Your task to perform on an android device: make emails show in primary in the gmail app Image 0: 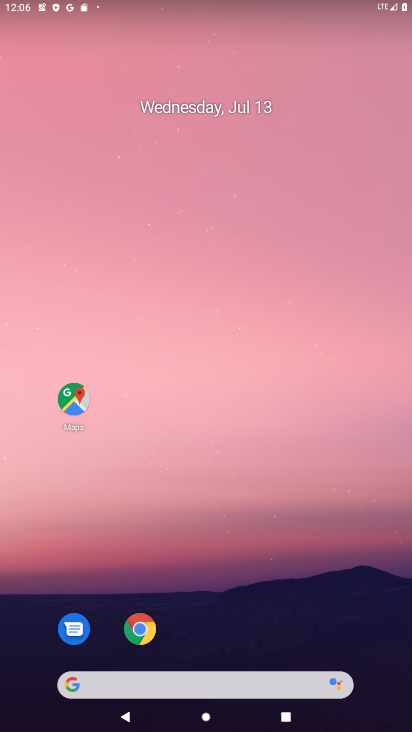
Step 0: click (192, 303)
Your task to perform on an android device: make emails show in primary in the gmail app Image 1: 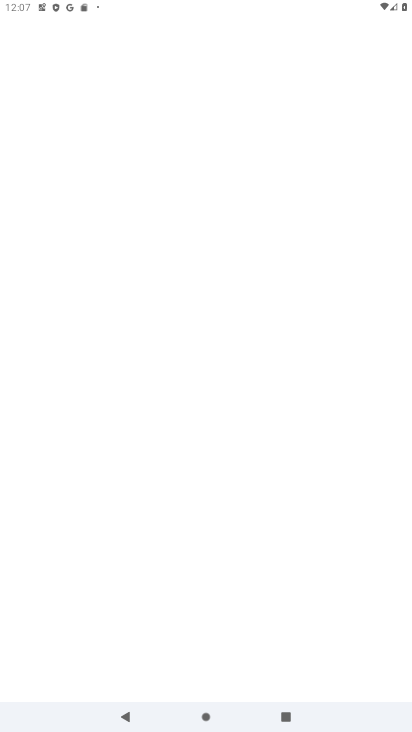
Step 1: press home button
Your task to perform on an android device: make emails show in primary in the gmail app Image 2: 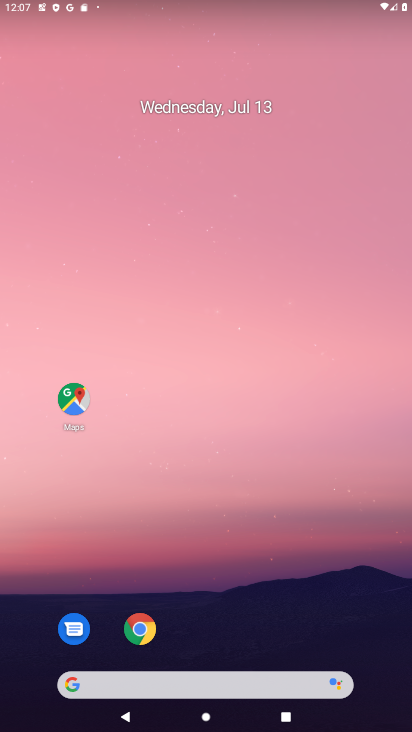
Step 2: drag from (270, 571) to (251, 284)
Your task to perform on an android device: make emails show in primary in the gmail app Image 3: 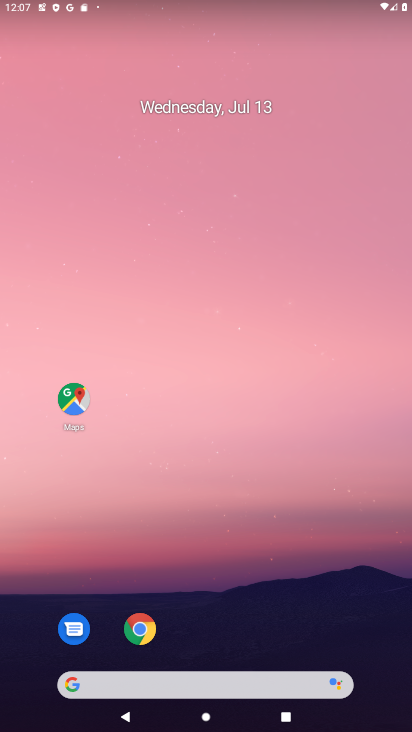
Step 3: drag from (200, 629) to (214, 195)
Your task to perform on an android device: make emails show in primary in the gmail app Image 4: 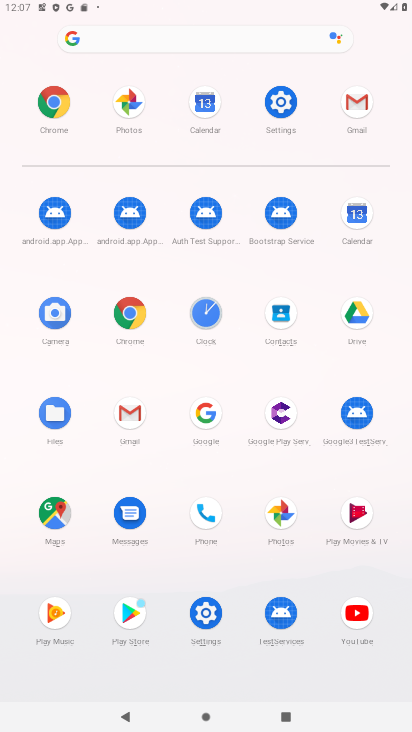
Step 4: click (352, 94)
Your task to perform on an android device: make emails show in primary in the gmail app Image 5: 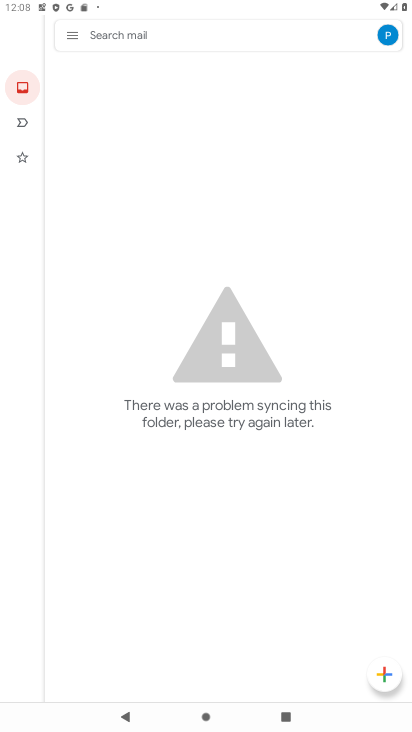
Step 5: click (69, 33)
Your task to perform on an android device: make emails show in primary in the gmail app Image 6: 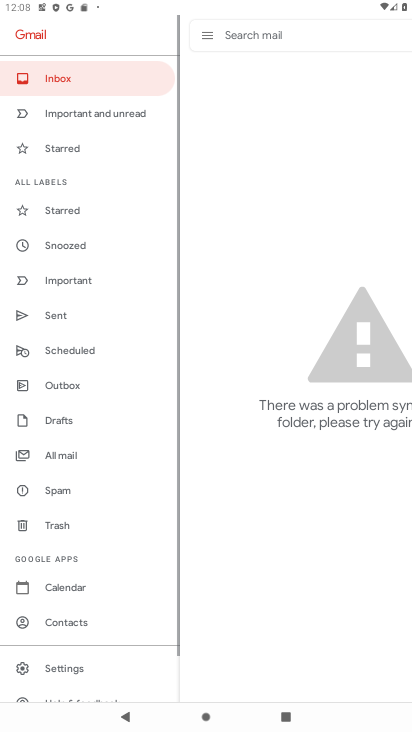
Step 6: click (59, 672)
Your task to perform on an android device: make emails show in primary in the gmail app Image 7: 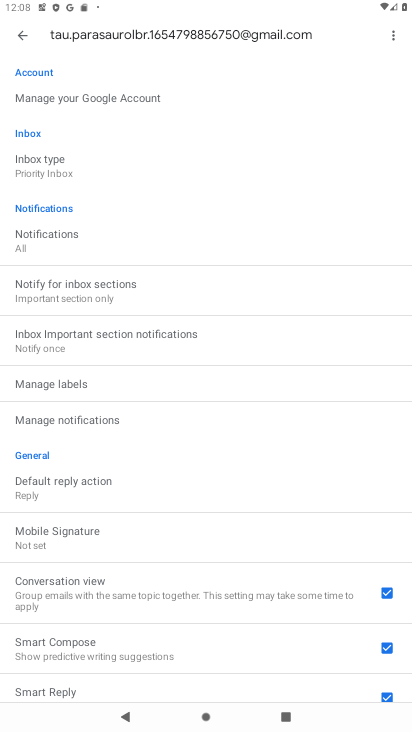
Step 7: drag from (62, 508) to (73, 230)
Your task to perform on an android device: make emails show in primary in the gmail app Image 8: 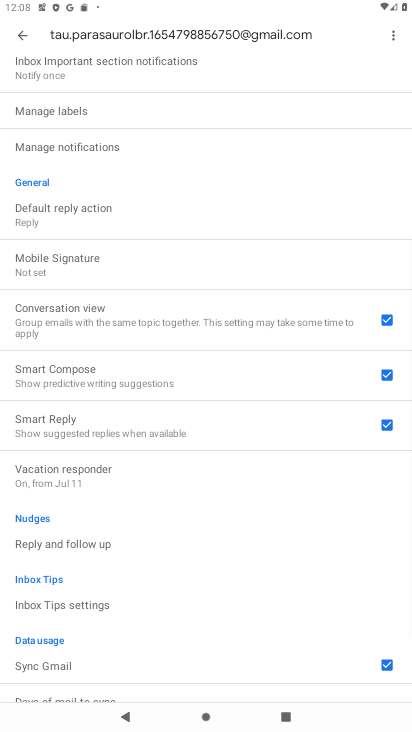
Step 8: drag from (82, 627) to (177, 175)
Your task to perform on an android device: make emails show in primary in the gmail app Image 9: 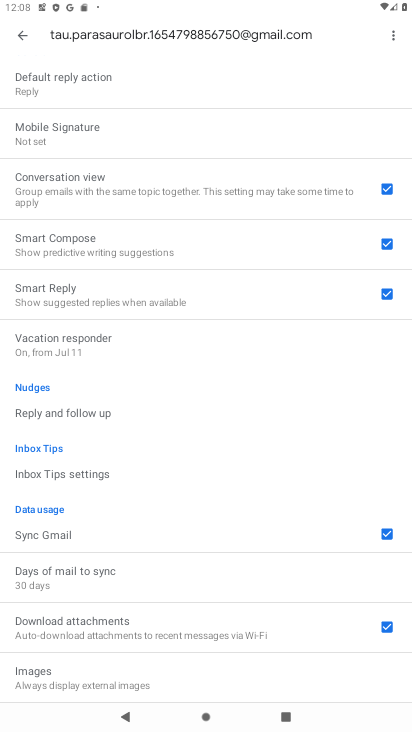
Step 9: click (27, 36)
Your task to perform on an android device: make emails show in primary in the gmail app Image 10: 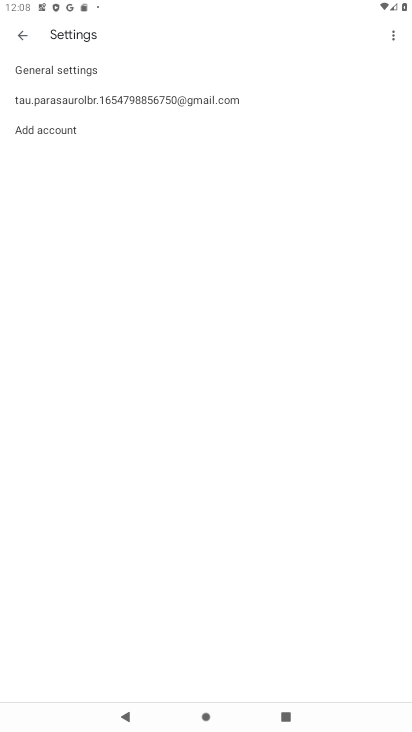
Step 10: click (61, 91)
Your task to perform on an android device: make emails show in primary in the gmail app Image 11: 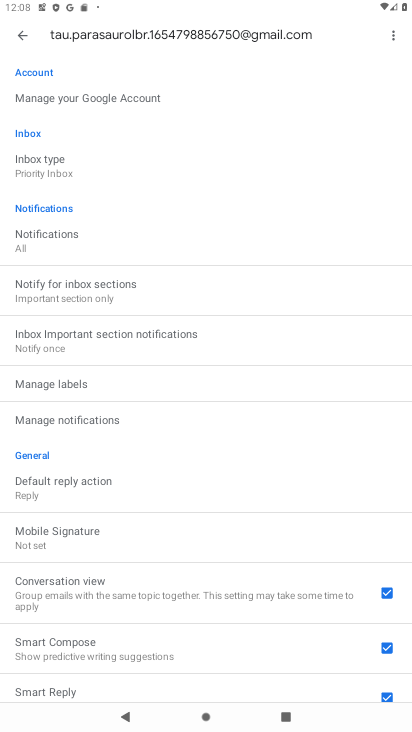
Step 11: task complete